Your task to perform on an android device: check the backup settings in the google photos Image 0: 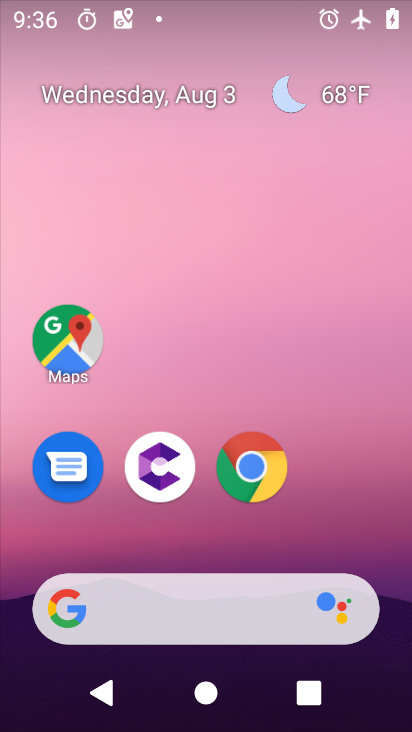
Step 0: drag from (327, 481) to (295, 61)
Your task to perform on an android device: check the backup settings in the google photos Image 1: 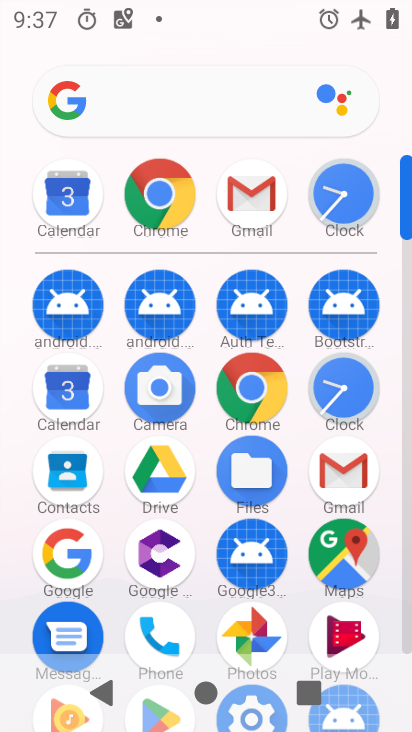
Step 1: click (249, 632)
Your task to perform on an android device: check the backup settings in the google photos Image 2: 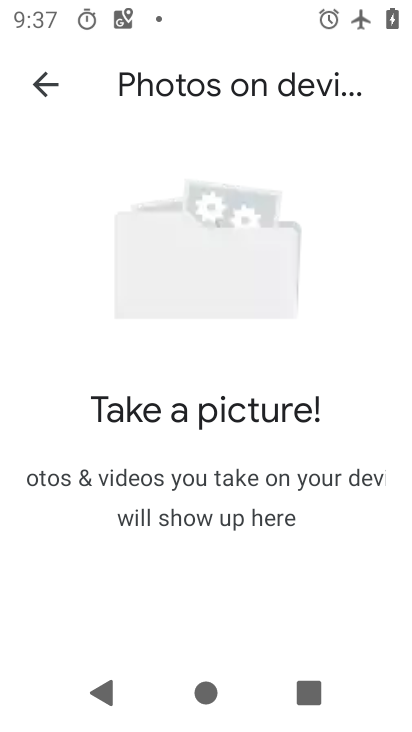
Step 2: click (61, 80)
Your task to perform on an android device: check the backup settings in the google photos Image 3: 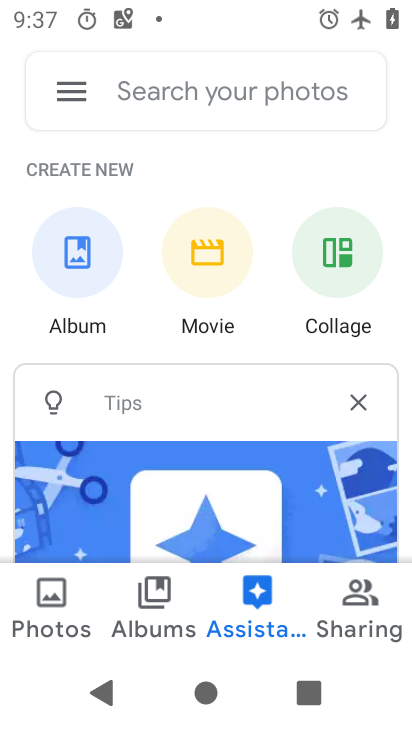
Step 3: click (68, 86)
Your task to perform on an android device: check the backup settings in the google photos Image 4: 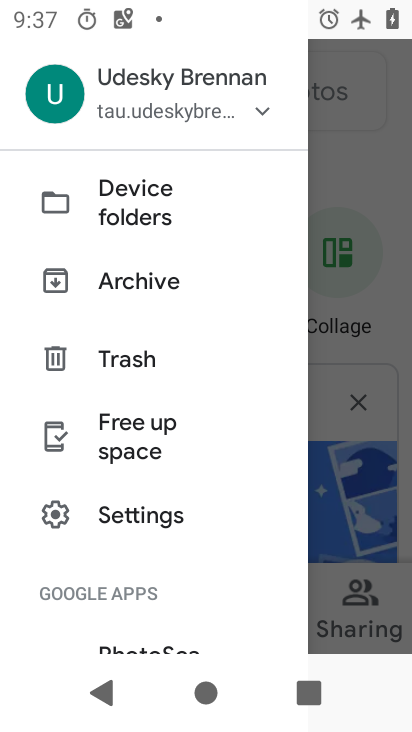
Step 4: click (148, 514)
Your task to perform on an android device: check the backup settings in the google photos Image 5: 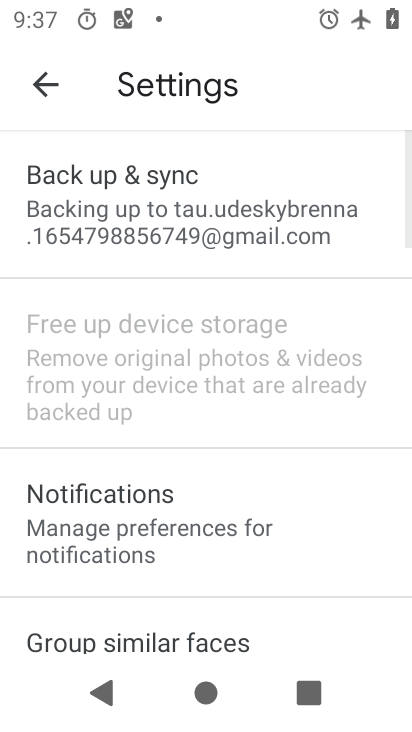
Step 5: click (226, 222)
Your task to perform on an android device: check the backup settings in the google photos Image 6: 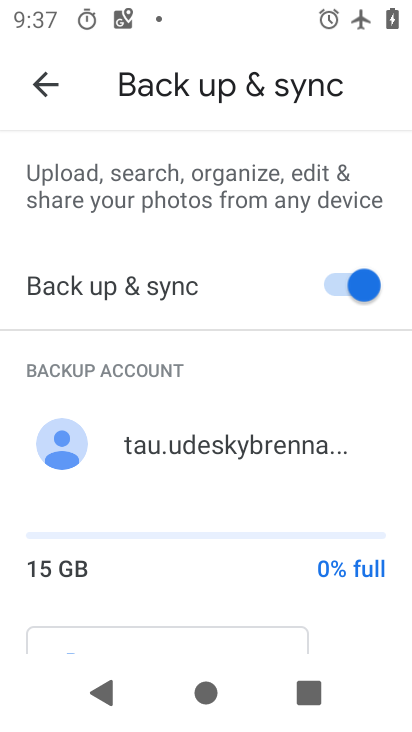
Step 6: task complete